Your task to perform on an android device: Go to privacy settings Image 0: 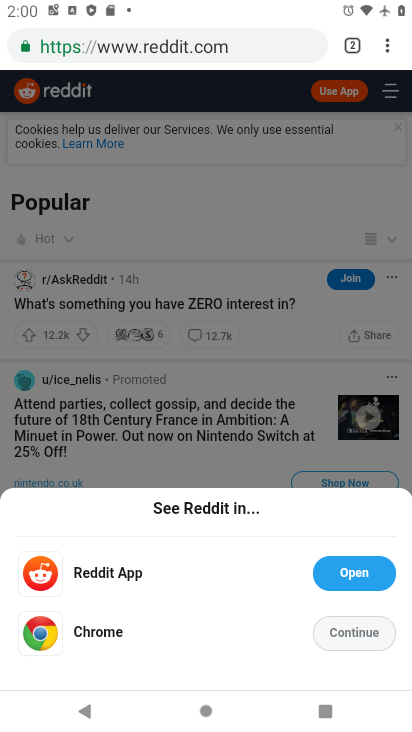
Step 0: press home button
Your task to perform on an android device: Go to privacy settings Image 1: 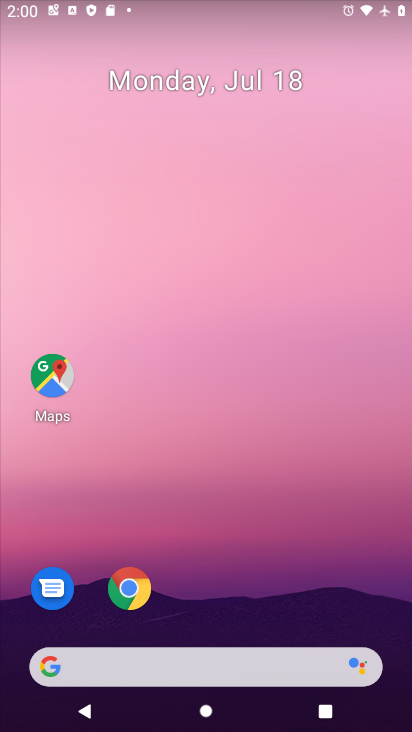
Step 1: drag from (246, 662) to (197, 204)
Your task to perform on an android device: Go to privacy settings Image 2: 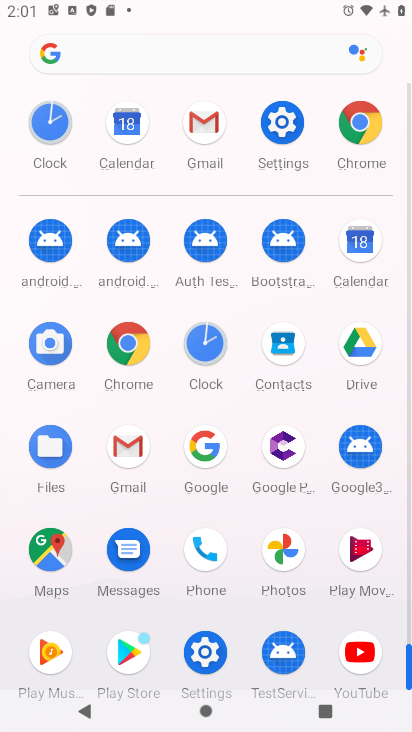
Step 2: click (280, 150)
Your task to perform on an android device: Go to privacy settings Image 3: 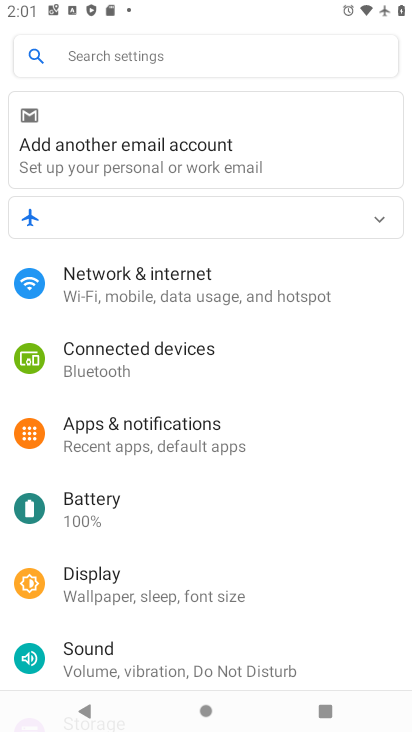
Step 3: drag from (170, 595) to (207, 293)
Your task to perform on an android device: Go to privacy settings Image 4: 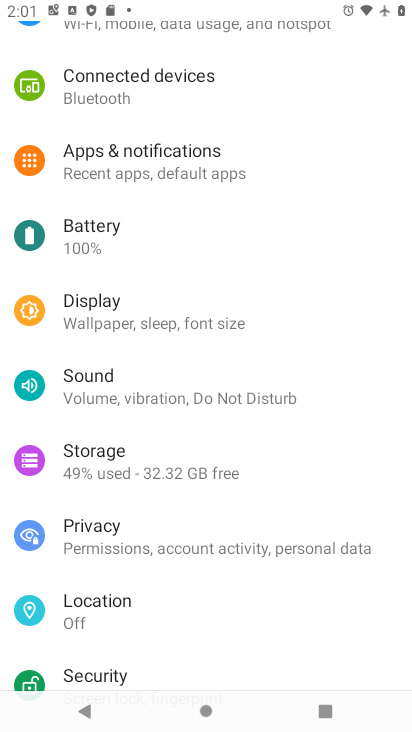
Step 4: click (167, 537)
Your task to perform on an android device: Go to privacy settings Image 5: 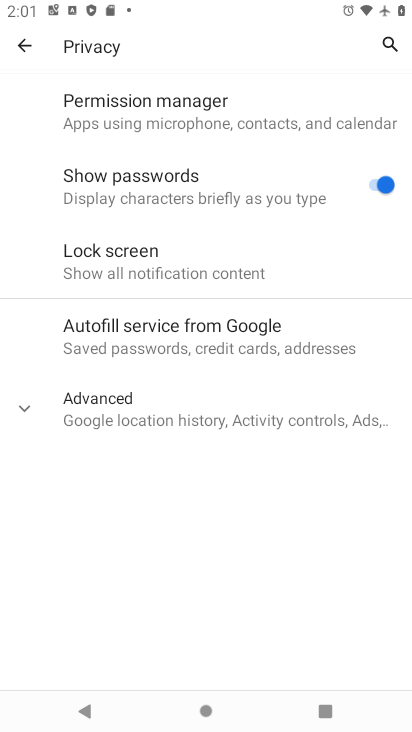
Step 5: task complete